Your task to perform on an android device: turn on showing notifications on the lock screen Image 0: 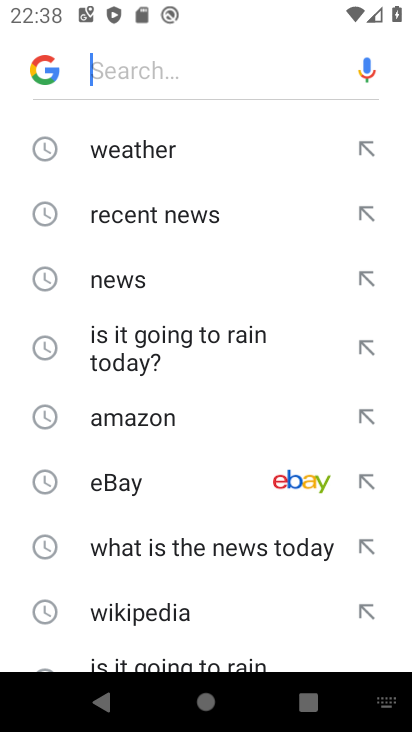
Step 0: press home button
Your task to perform on an android device: turn on showing notifications on the lock screen Image 1: 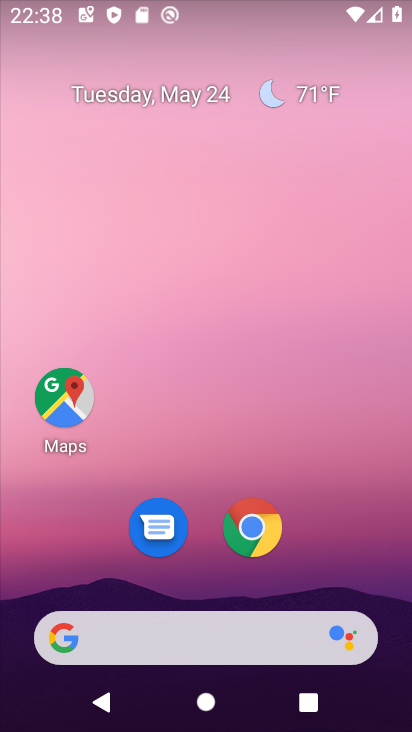
Step 1: drag from (323, 591) to (215, 72)
Your task to perform on an android device: turn on showing notifications on the lock screen Image 2: 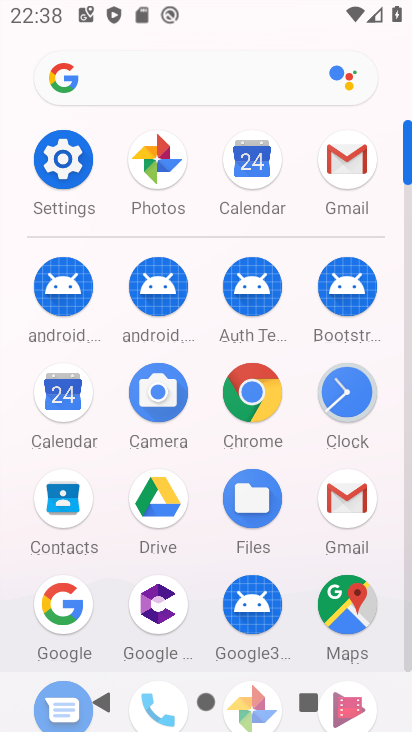
Step 2: click (73, 178)
Your task to perform on an android device: turn on showing notifications on the lock screen Image 3: 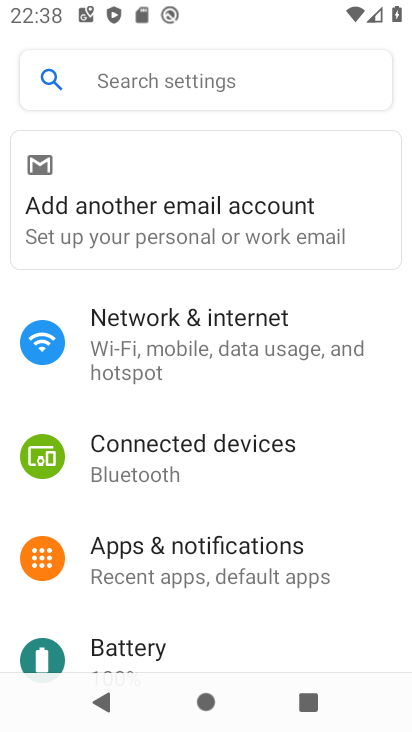
Step 3: click (206, 549)
Your task to perform on an android device: turn on showing notifications on the lock screen Image 4: 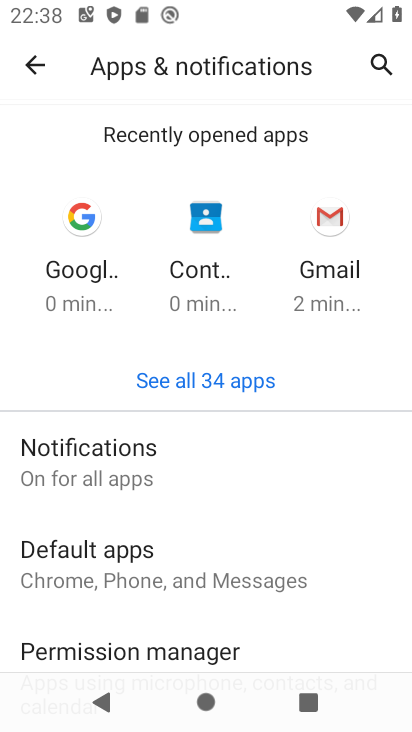
Step 4: click (132, 478)
Your task to perform on an android device: turn on showing notifications on the lock screen Image 5: 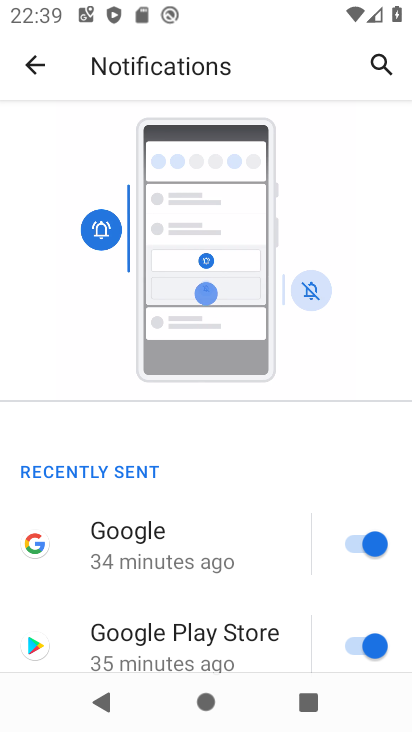
Step 5: drag from (134, 576) to (98, 312)
Your task to perform on an android device: turn on showing notifications on the lock screen Image 6: 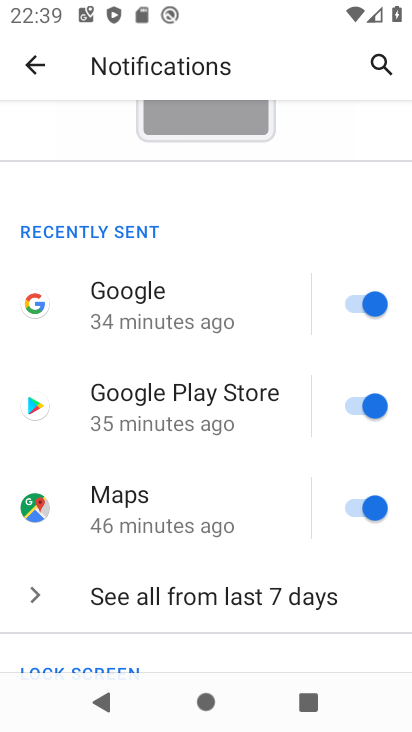
Step 6: drag from (135, 574) to (86, 382)
Your task to perform on an android device: turn on showing notifications on the lock screen Image 7: 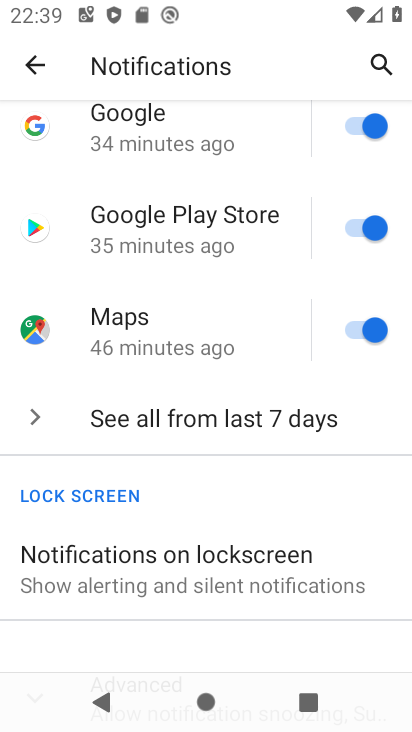
Step 7: click (145, 571)
Your task to perform on an android device: turn on showing notifications on the lock screen Image 8: 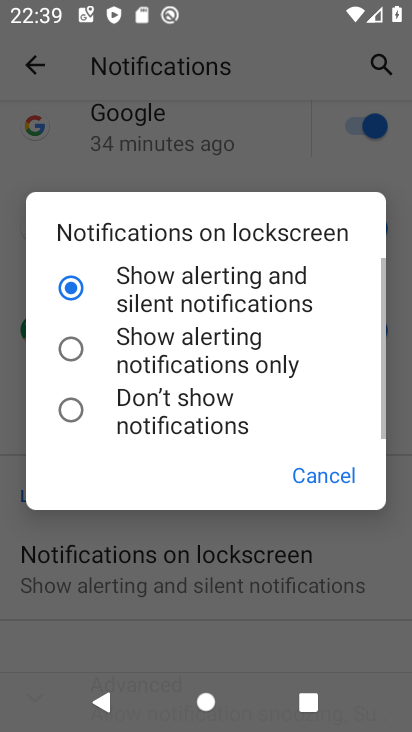
Step 8: click (123, 291)
Your task to perform on an android device: turn on showing notifications on the lock screen Image 9: 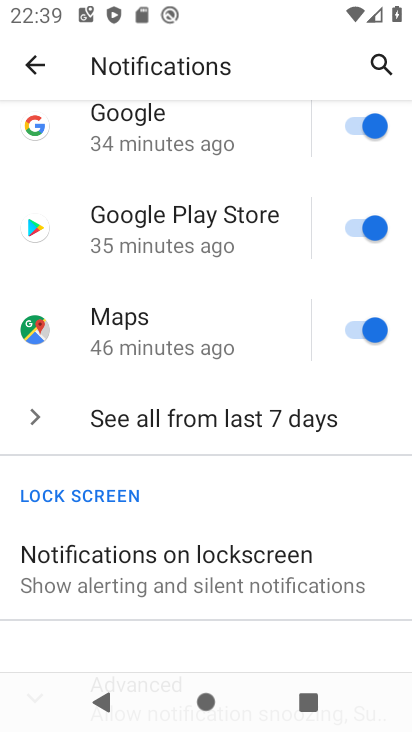
Step 9: task complete